Your task to perform on an android device: Open Yahoo.com Image 0: 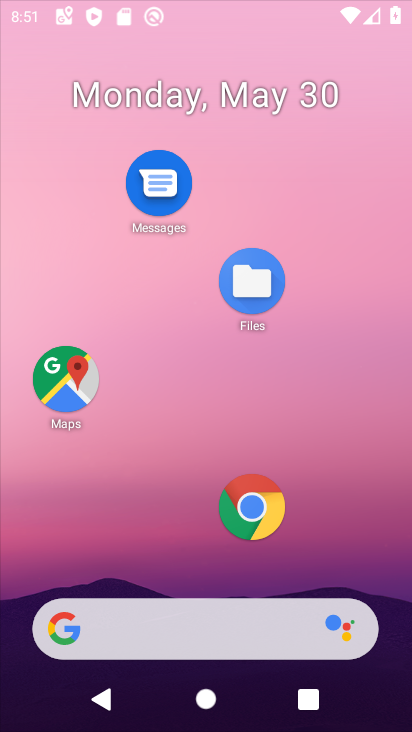
Step 0: click (330, 2)
Your task to perform on an android device: Open Yahoo.com Image 1: 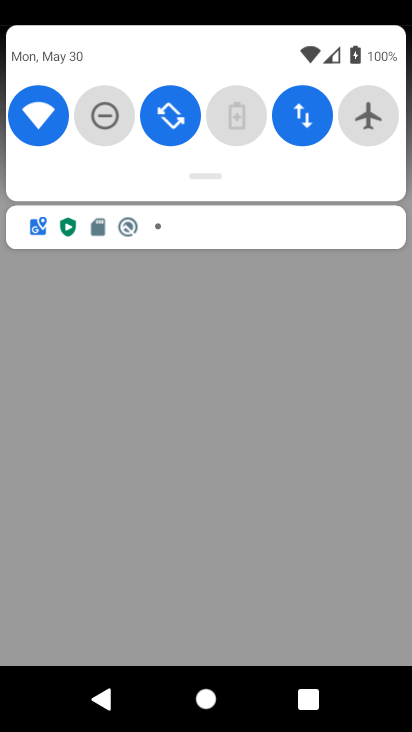
Step 1: drag from (200, 498) to (207, 42)
Your task to perform on an android device: Open Yahoo.com Image 2: 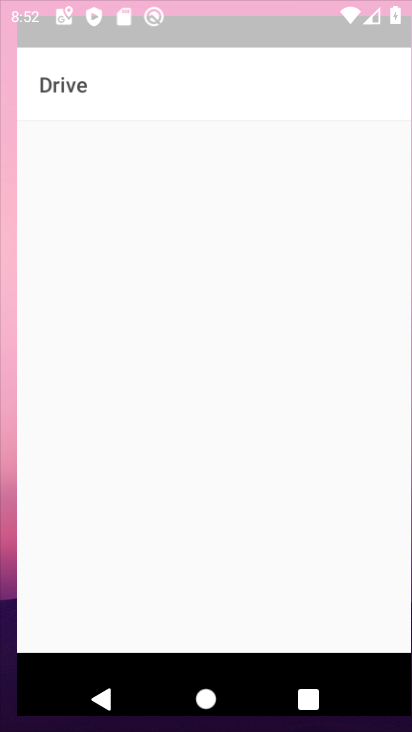
Step 2: press home button
Your task to perform on an android device: Open Yahoo.com Image 3: 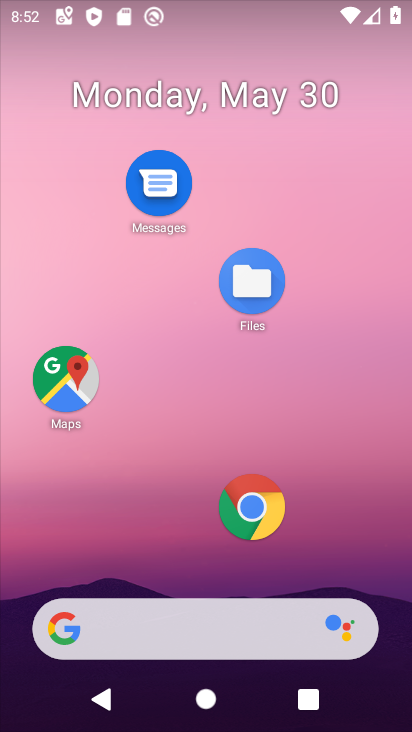
Step 3: click (248, 519)
Your task to perform on an android device: Open Yahoo.com Image 4: 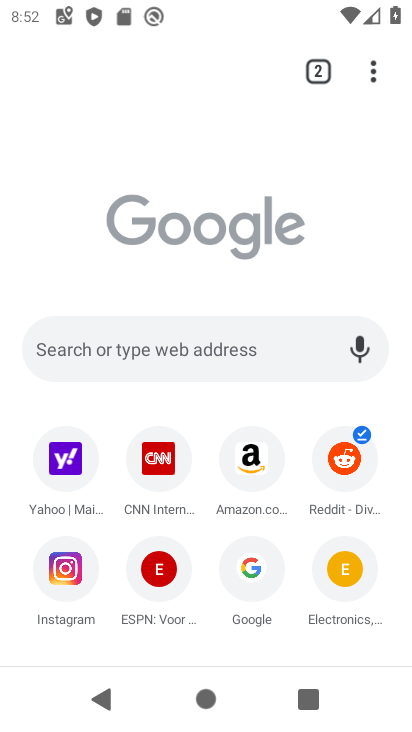
Step 4: click (244, 570)
Your task to perform on an android device: Open Yahoo.com Image 5: 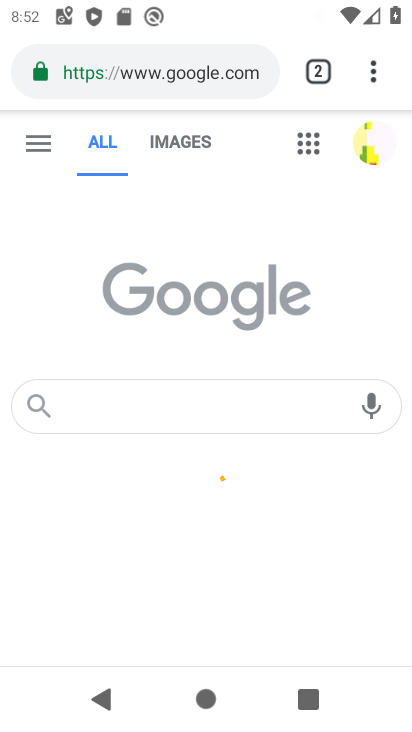
Step 5: press back button
Your task to perform on an android device: Open Yahoo.com Image 6: 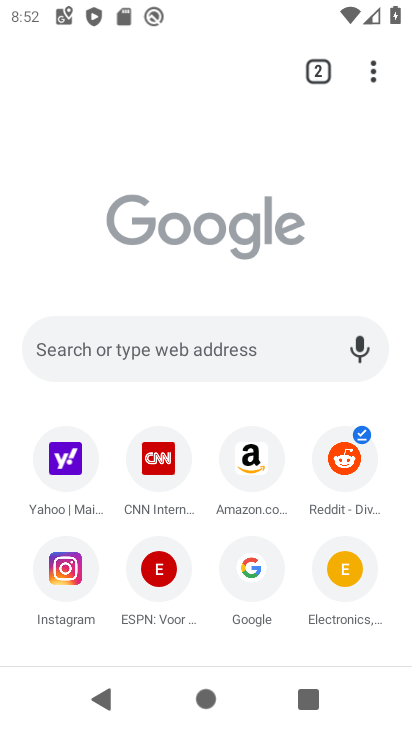
Step 6: click (66, 478)
Your task to perform on an android device: Open Yahoo.com Image 7: 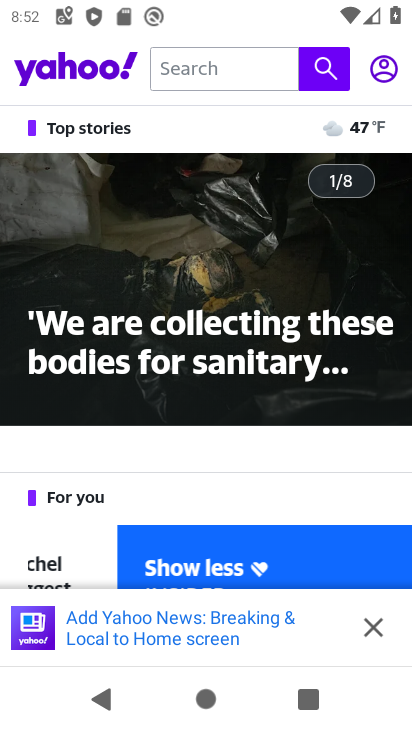
Step 7: task complete